Your task to perform on an android device: toggle location history Image 0: 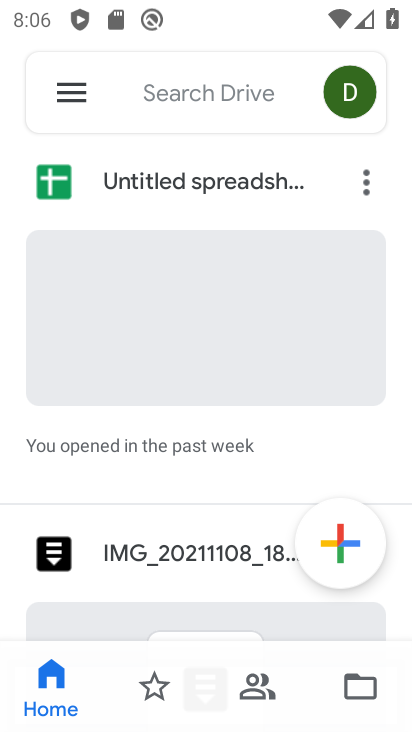
Step 0: press home button
Your task to perform on an android device: toggle location history Image 1: 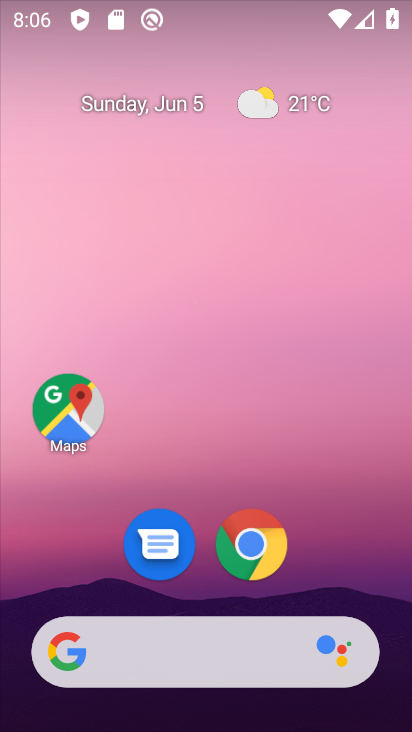
Step 1: drag from (380, 704) to (375, 75)
Your task to perform on an android device: toggle location history Image 2: 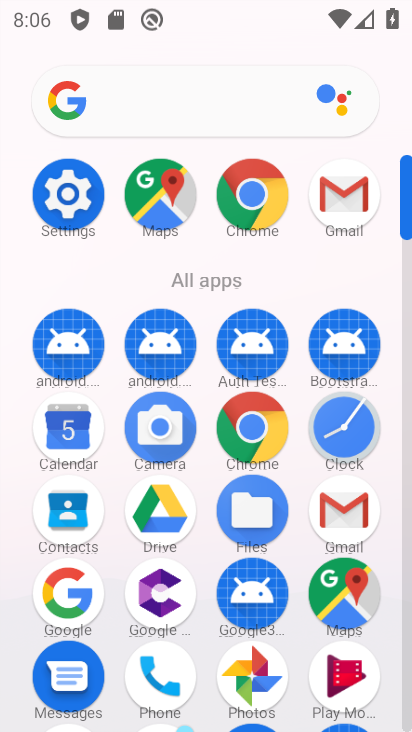
Step 2: click (77, 194)
Your task to perform on an android device: toggle location history Image 3: 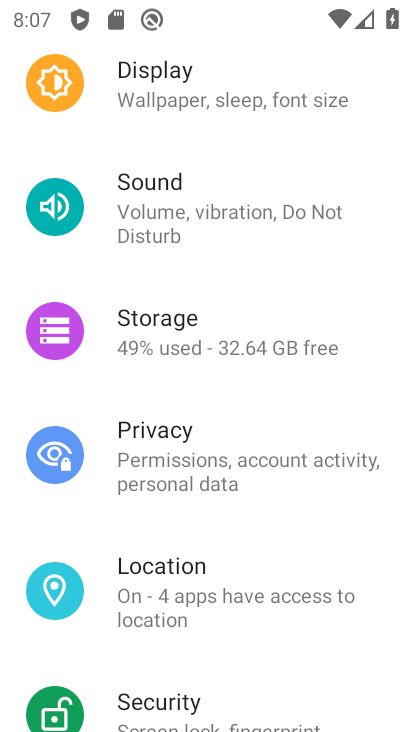
Step 3: click (179, 591)
Your task to perform on an android device: toggle location history Image 4: 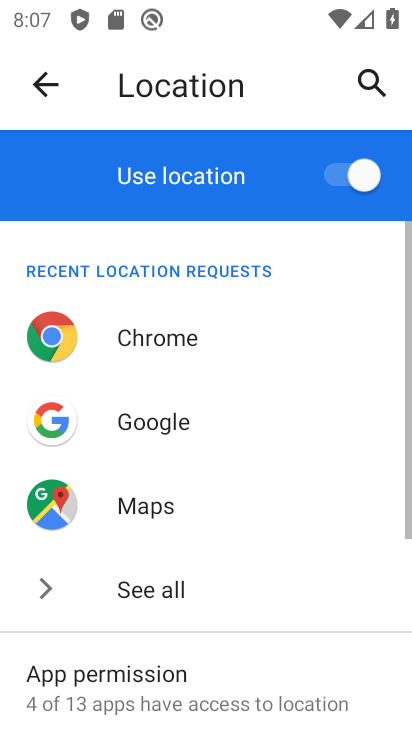
Step 4: drag from (236, 690) to (237, 315)
Your task to perform on an android device: toggle location history Image 5: 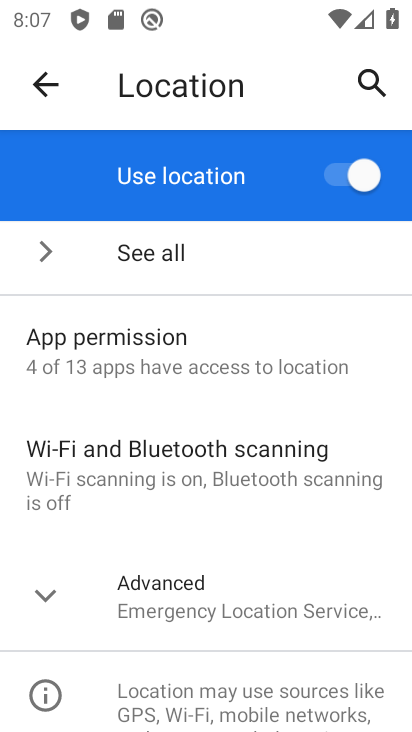
Step 5: click (123, 588)
Your task to perform on an android device: toggle location history Image 6: 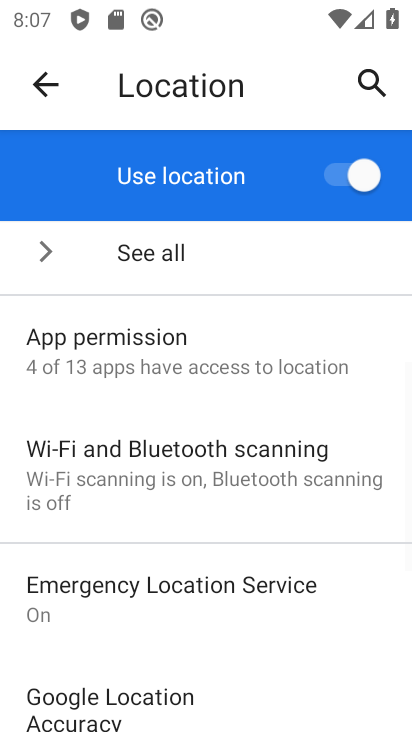
Step 6: drag from (207, 678) to (218, 325)
Your task to perform on an android device: toggle location history Image 7: 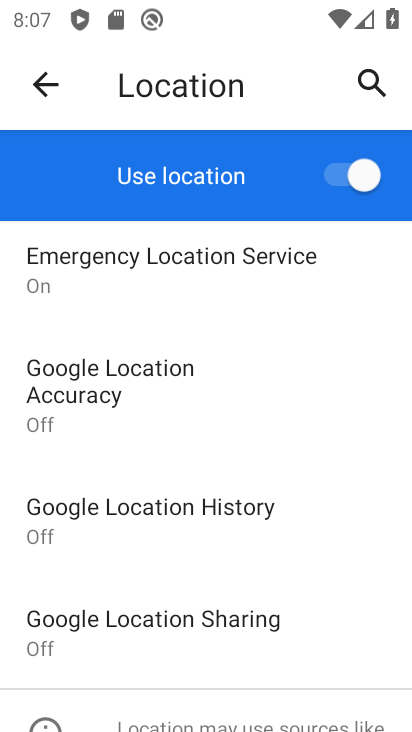
Step 7: click (136, 511)
Your task to perform on an android device: toggle location history Image 8: 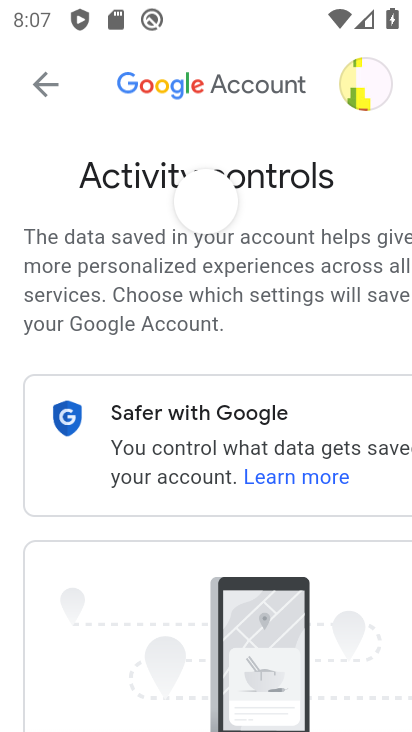
Step 8: drag from (171, 564) to (146, 147)
Your task to perform on an android device: toggle location history Image 9: 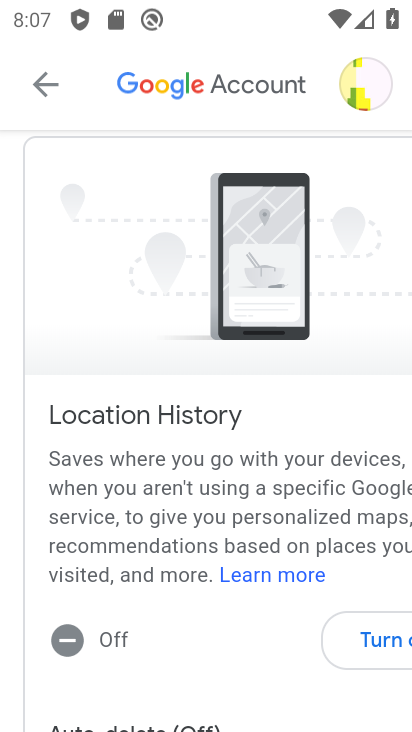
Step 9: click (370, 639)
Your task to perform on an android device: toggle location history Image 10: 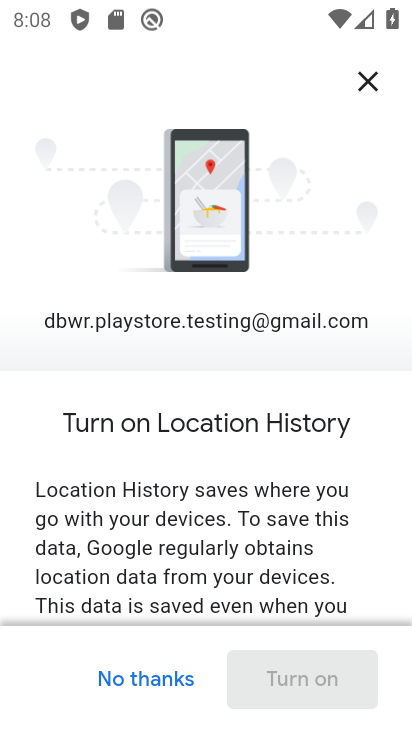
Step 10: drag from (193, 585) to (221, 197)
Your task to perform on an android device: toggle location history Image 11: 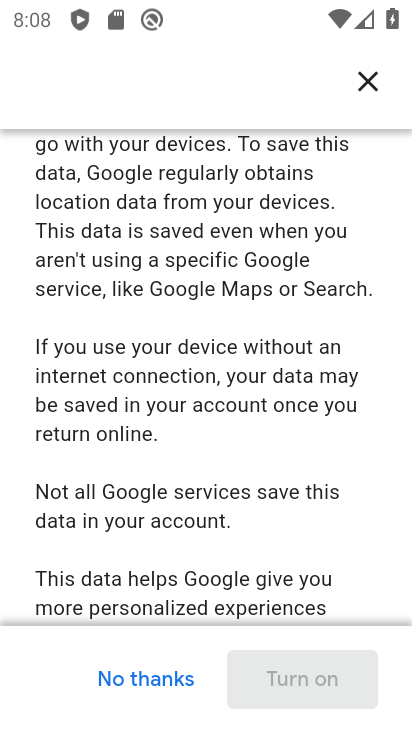
Step 11: drag from (212, 603) to (204, 197)
Your task to perform on an android device: toggle location history Image 12: 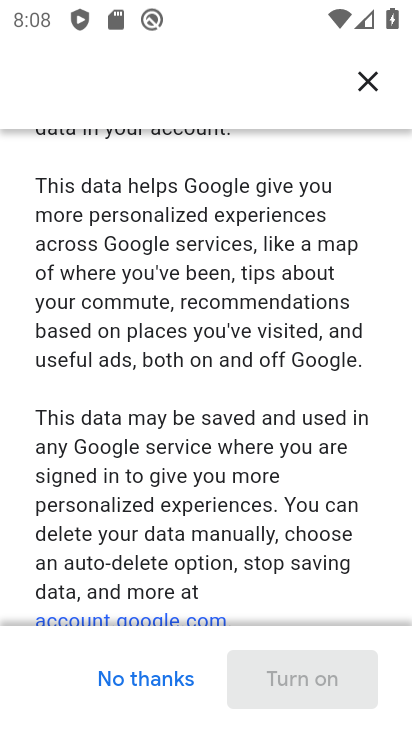
Step 12: drag from (226, 590) to (235, 181)
Your task to perform on an android device: toggle location history Image 13: 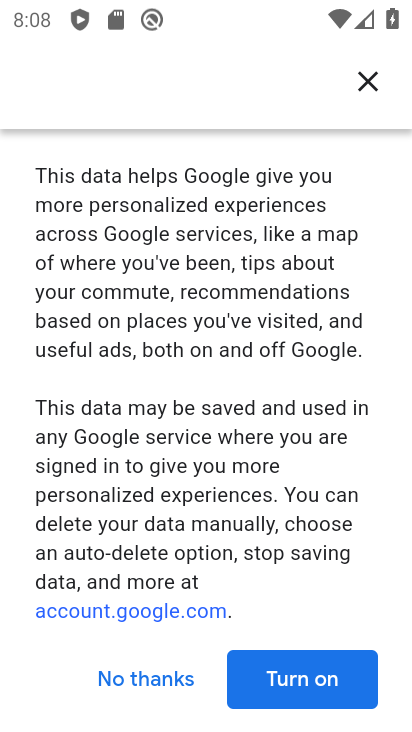
Step 13: click (261, 688)
Your task to perform on an android device: toggle location history Image 14: 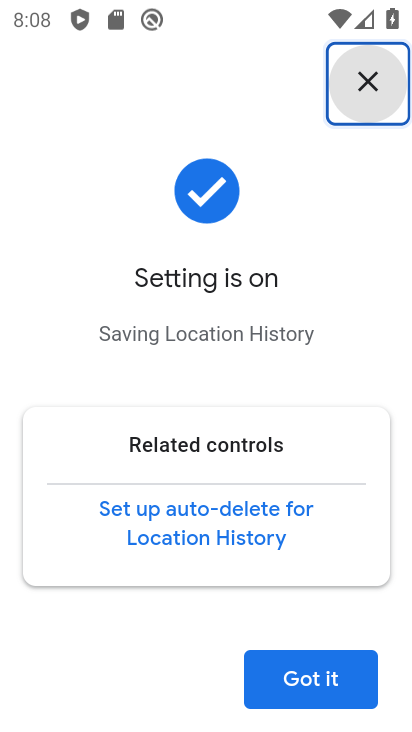
Step 14: click (296, 690)
Your task to perform on an android device: toggle location history Image 15: 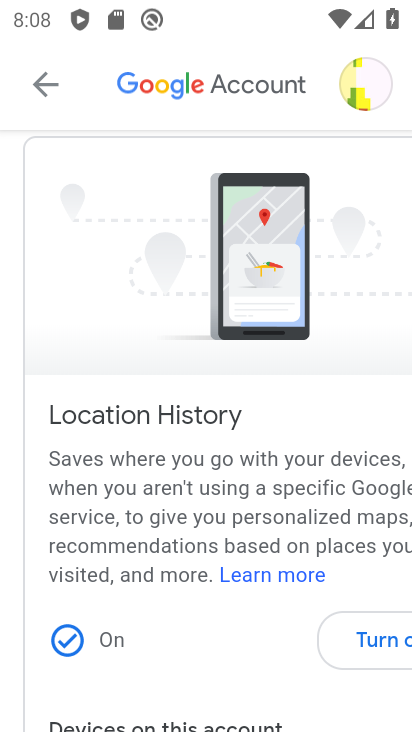
Step 15: task complete